Your task to perform on an android device: turn smart compose on in the gmail app Image 0: 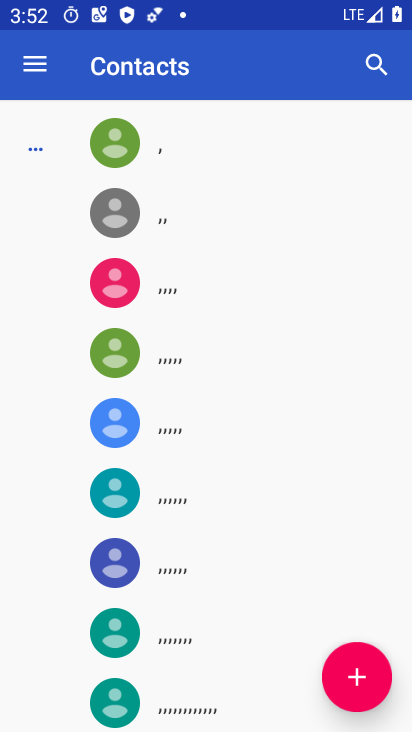
Step 0: press home button
Your task to perform on an android device: turn smart compose on in the gmail app Image 1: 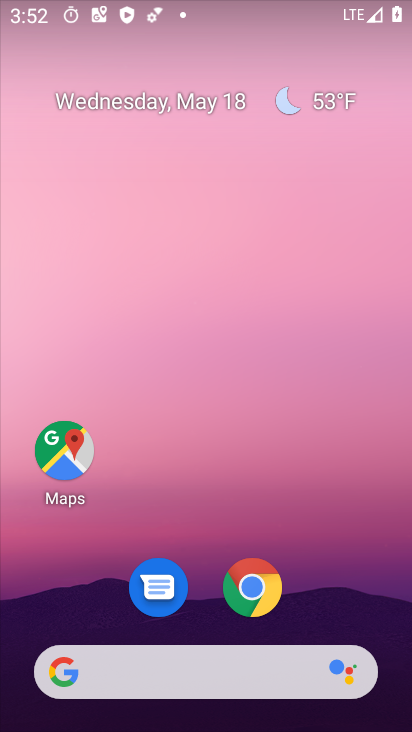
Step 1: drag from (212, 665) to (256, 204)
Your task to perform on an android device: turn smart compose on in the gmail app Image 2: 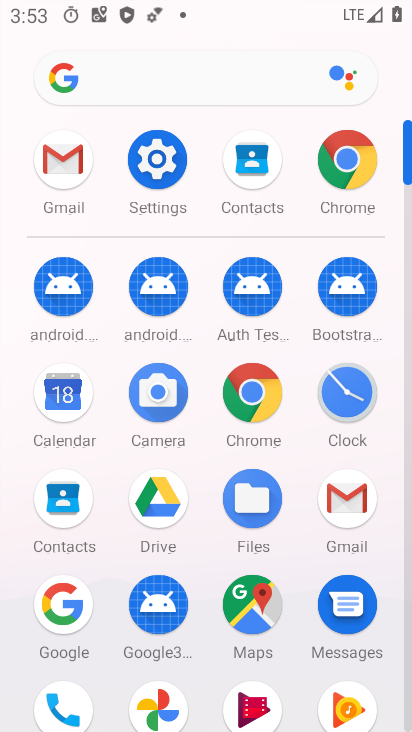
Step 2: click (341, 514)
Your task to perform on an android device: turn smart compose on in the gmail app Image 3: 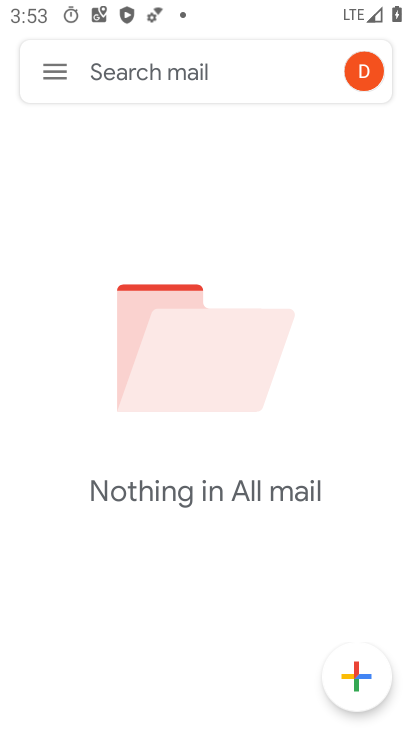
Step 3: click (66, 68)
Your task to perform on an android device: turn smart compose on in the gmail app Image 4: 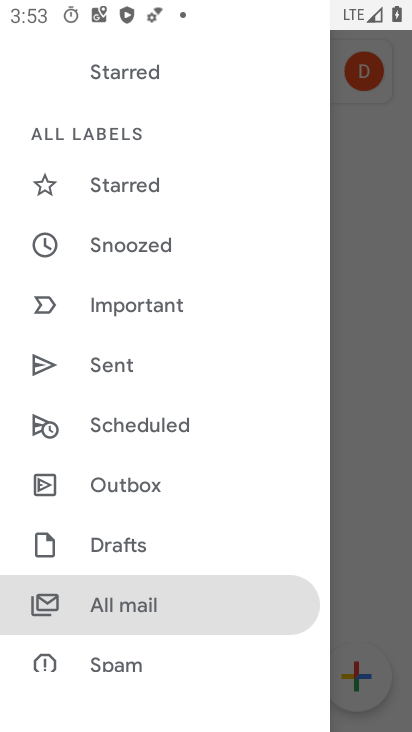
Step 4: drag from (157, 603) to (206, 354)
Your task to perform on an android device: turn smart compose on in the gmail app Image 5: 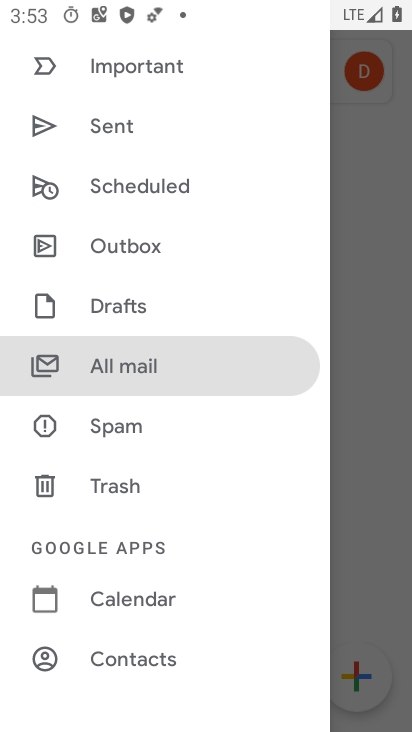
Step 5: drag from (147, 595) to (184, 352)
Your task to perform on an android device: turn smart compose on in the gmail app Image 6: 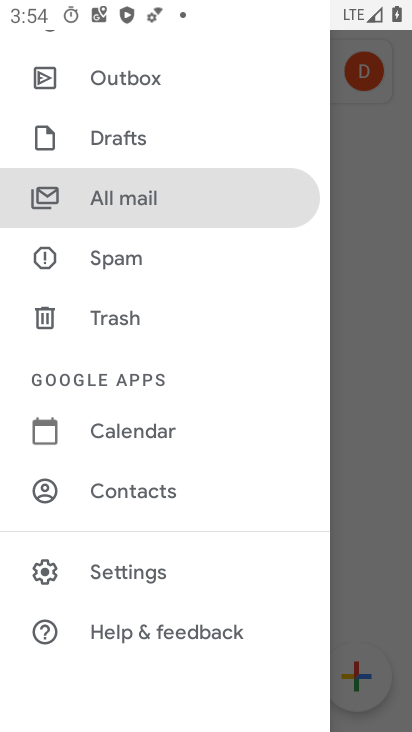
Step 6: click (151, 579)
Your task to perform on an android device: turn smart compose on in the gmail app Image 7: 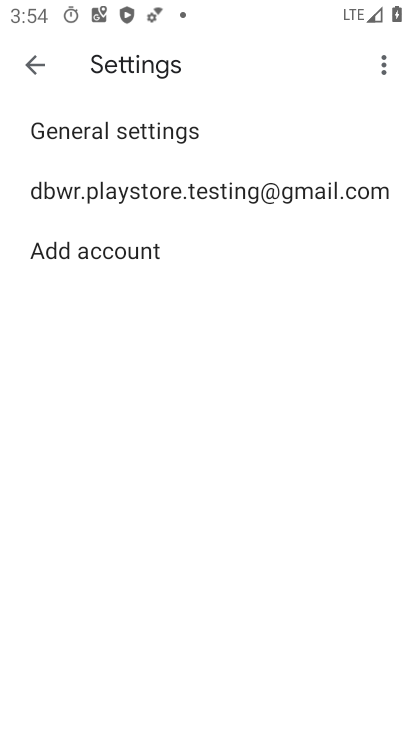
Step 7: click (261, 201)
Your task to perform on an android device: turn smart compose on in the gmail app Image 8: 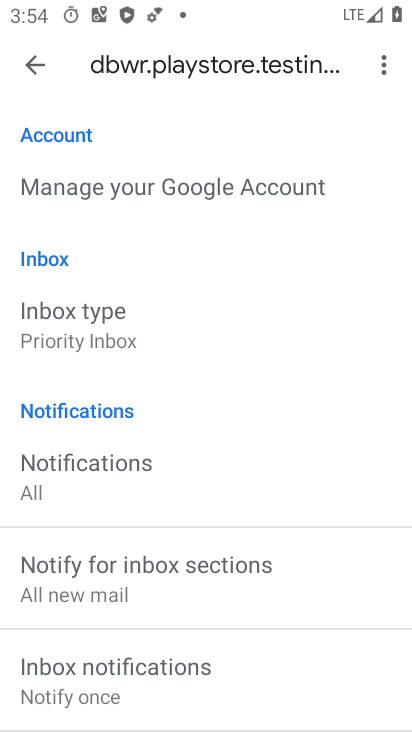
Step 8: task complete